Your task to perform on an android device: Open the map Image 0: 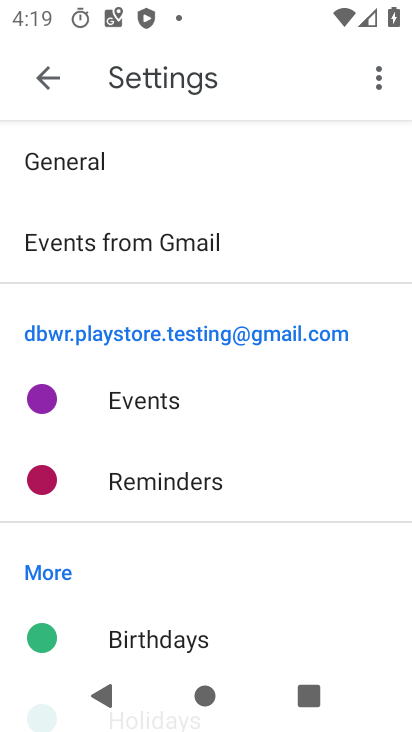
Step 0: press home button
Your task to perform on an android device: Open the map Image 1: 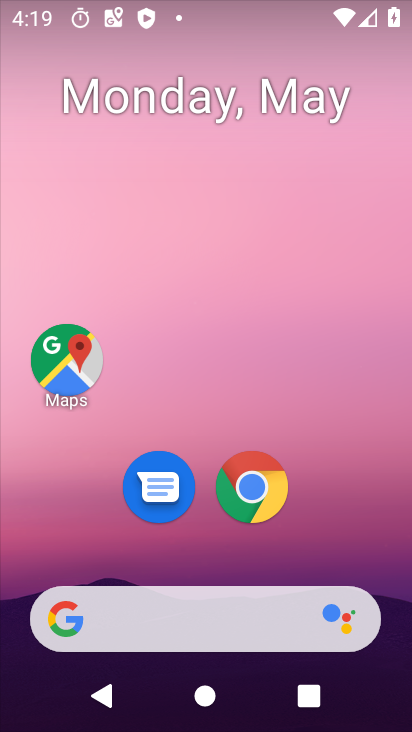
Step 1: click (68, 362)
Your task to perform on an android device: Open the map Image 2: 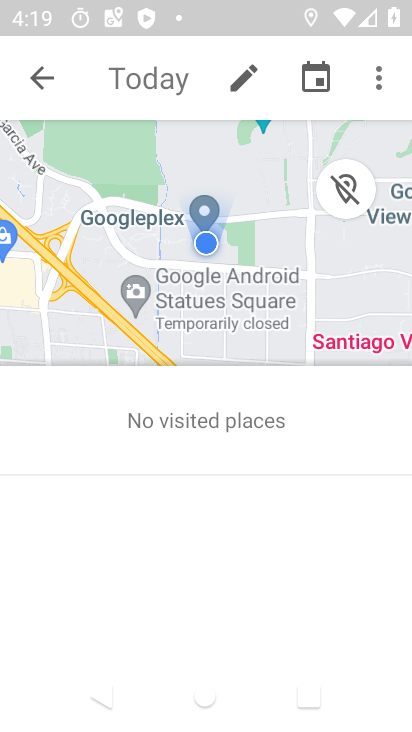
Step 2: task complete